Your task to perform on an android device: check data usage Image 0: 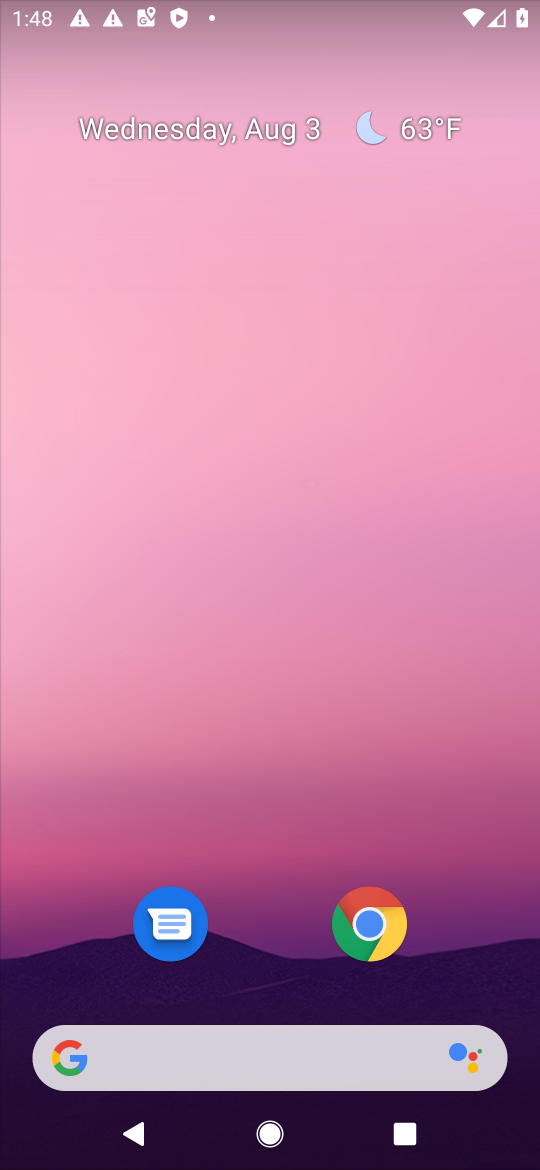
Step 0: drag from (271, 920) to (361, 62)
Your task to perform on an android device: check data usage Image 1: 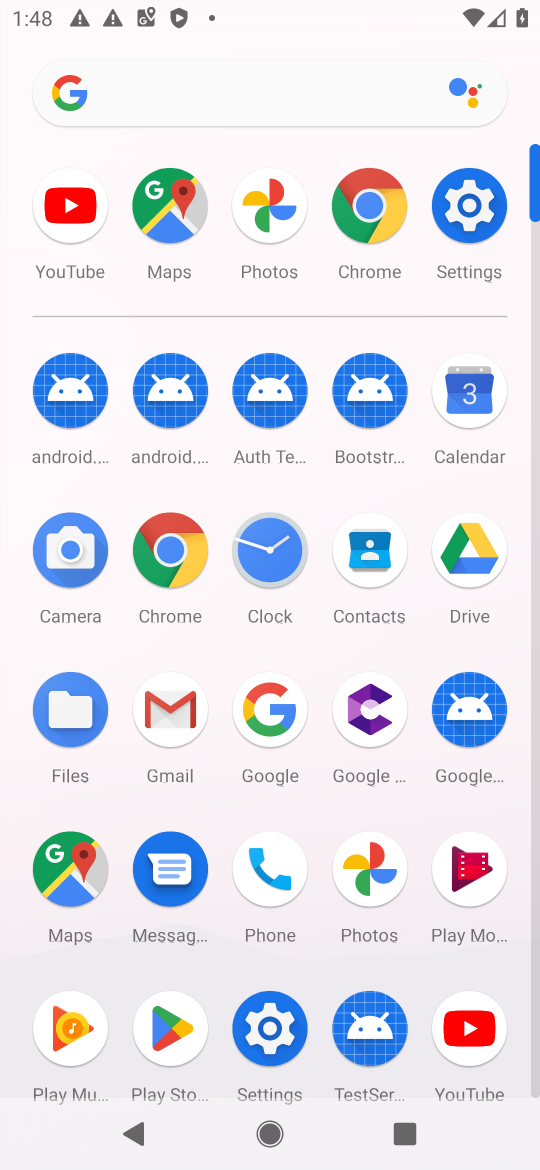
Step 1: click (263, 1011)
Your task to perform on an android device: check data usage Image 2: 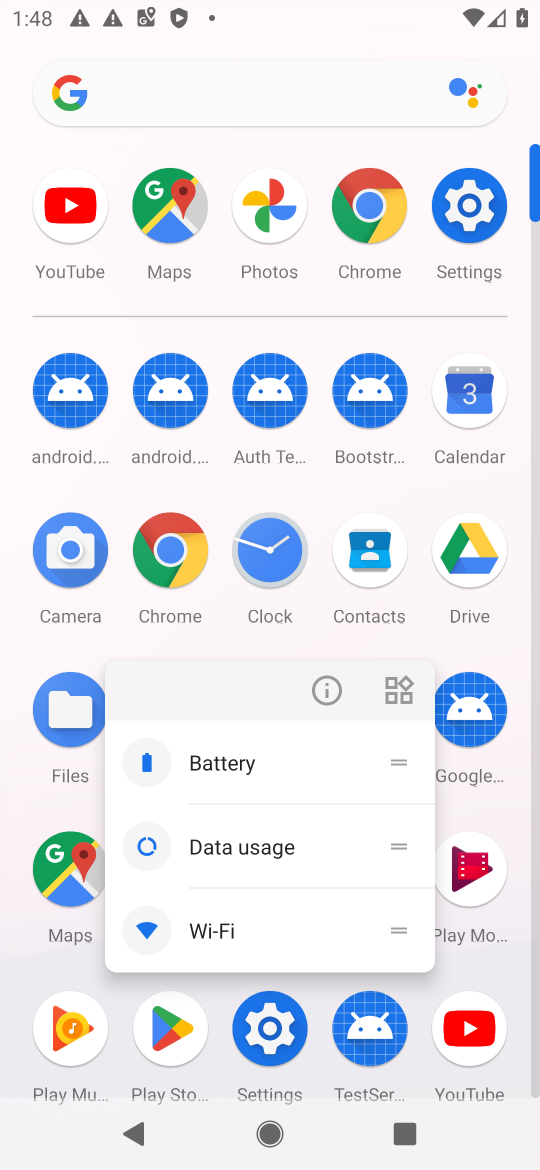
Step 2: click (263, 1017)
Your task to perform on an android device: check data usage Image 3: 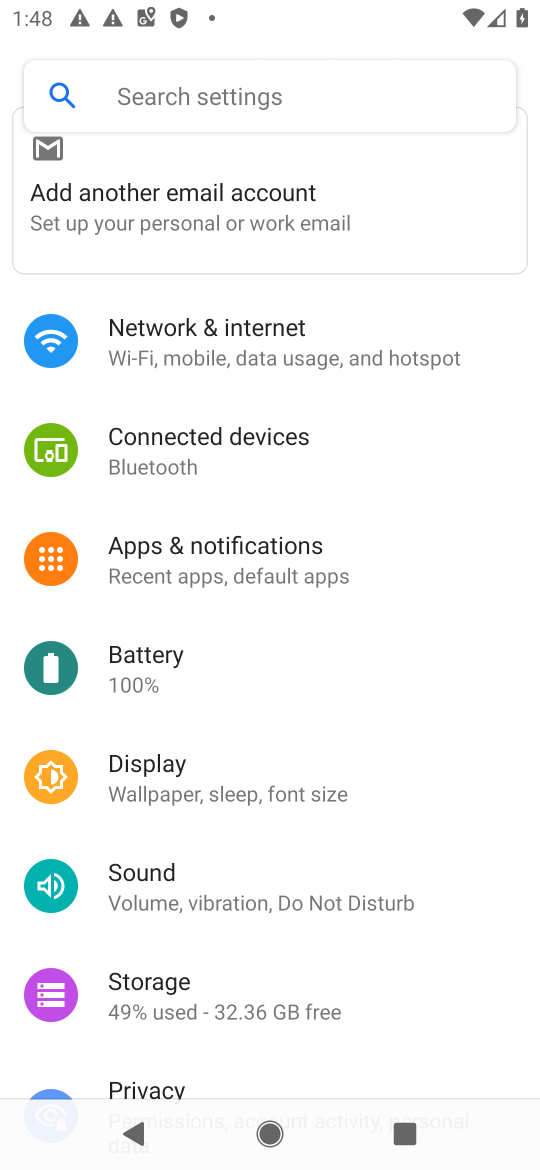
Step 3: click (227, 329)
Your task to perform on an android device: check data usage Image 4: 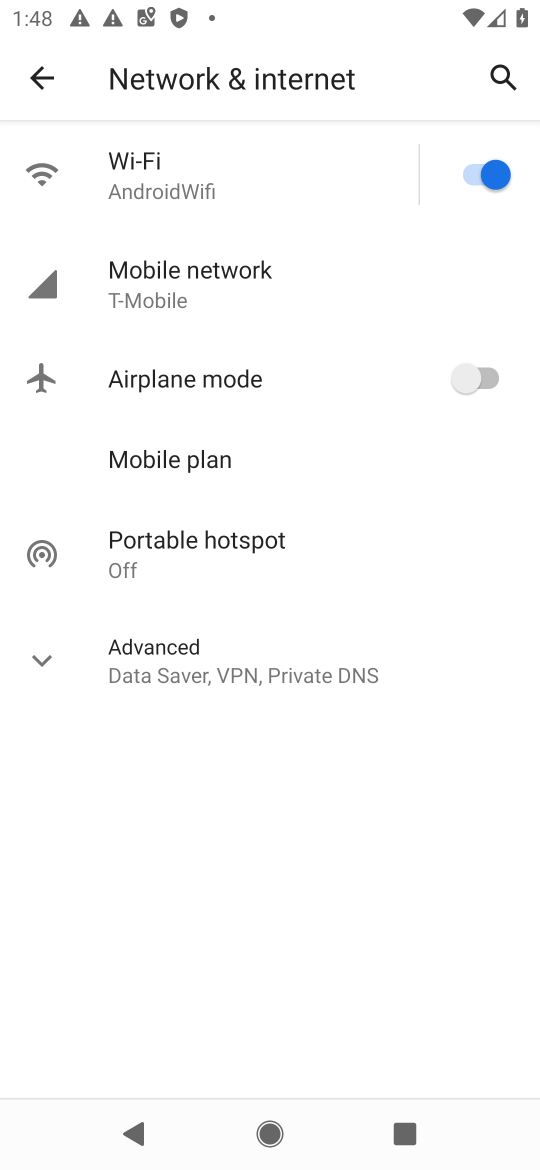
Step 4: click (230, 290)
Your task to perform on an android device: check data usage Image 5: 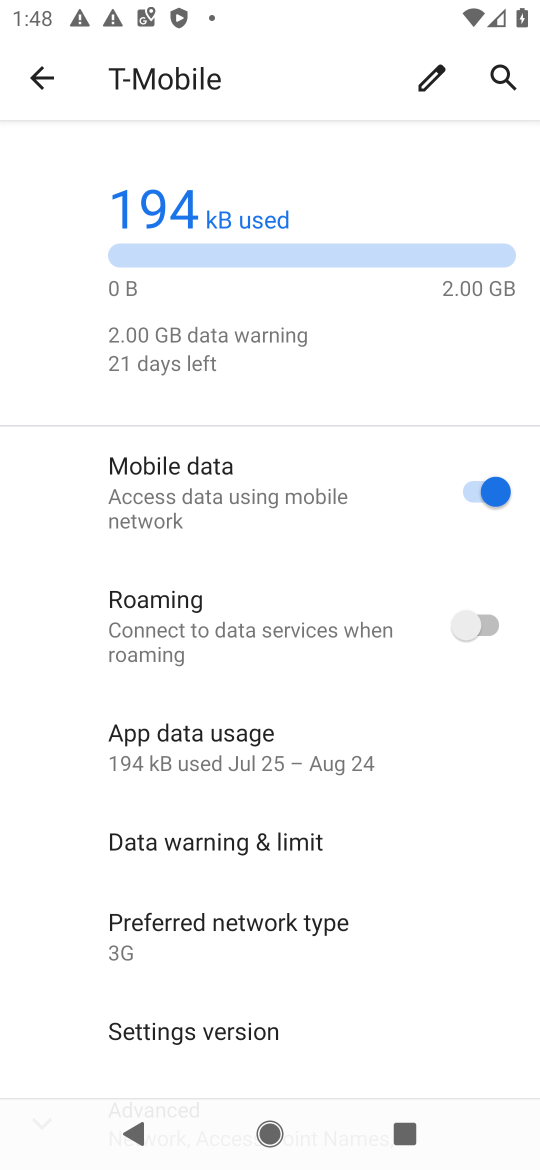
Step 5: click (242, 741)
Your task to perform on an android device: check data usage Image 6: 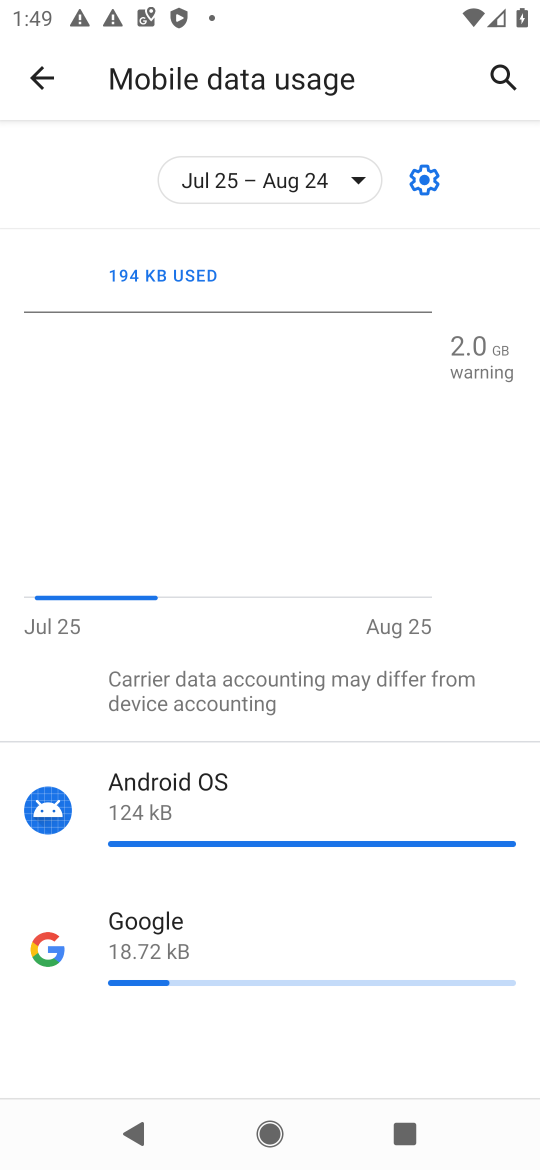
Step 6: task complete